Your task to perform on an android device: turn on sleep mode Image 0: 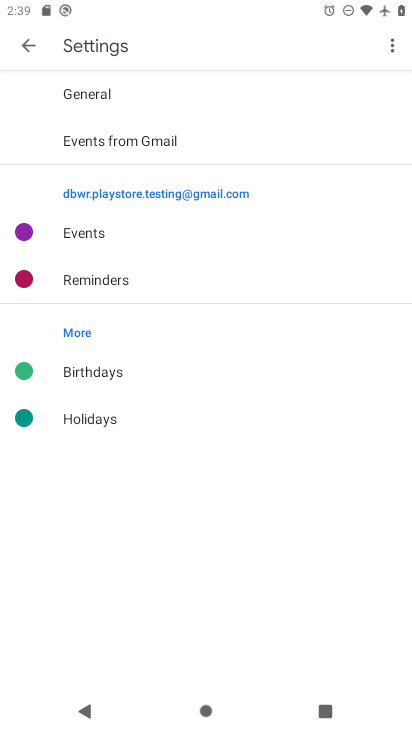
Step 0: press home button
Your task to perform on an android device: turn on sleep mode Image 1: 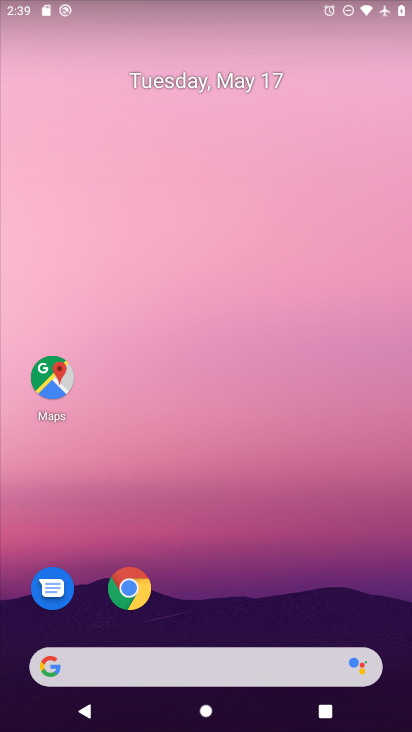
Step 1: drag from (186, 578) to (186, 211)
Your task to perform on an android device: turn on sleep mode Image 2: 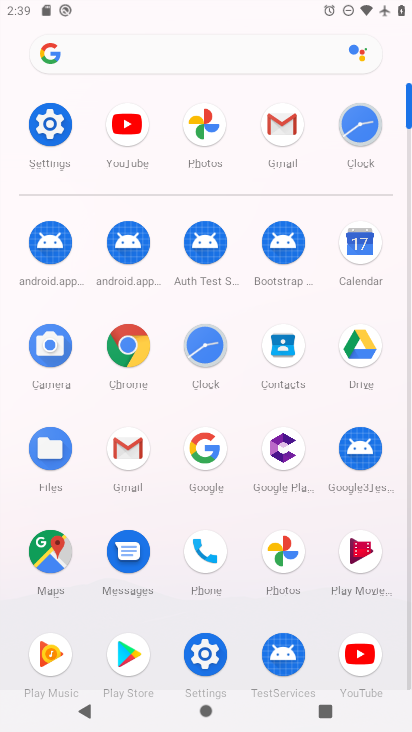
Step 2: click (51, 140)
Your task to perform on an android device: turn on sleep mode Image 3: 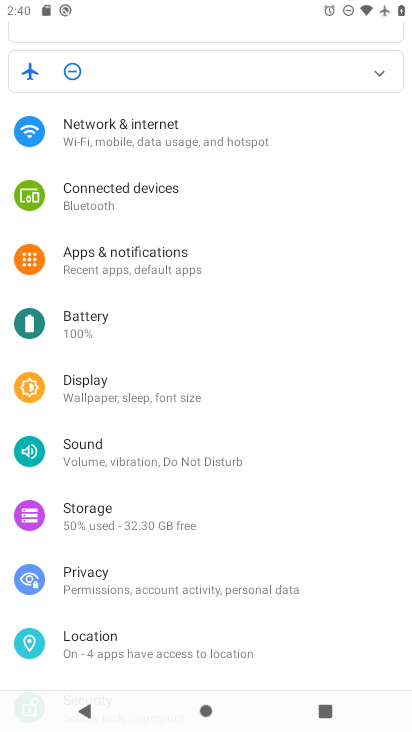
Step 3: click (121, 397)
Your task to perform on an android device: turn on sleep mode Image 4: 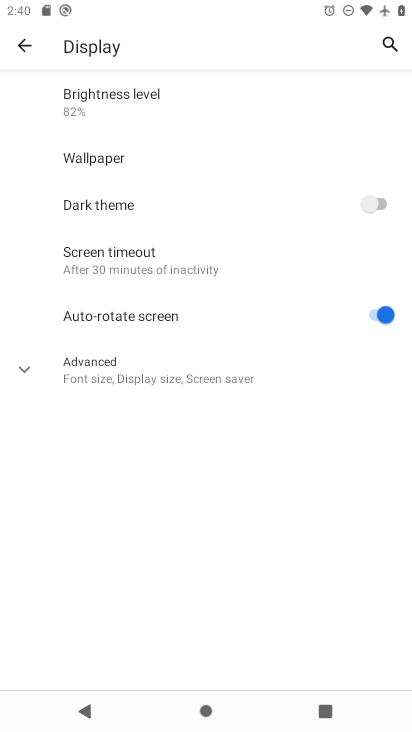
Step 4: click (125, 369)
Your task to perform on an android device: turn on sleep mode Image 5: 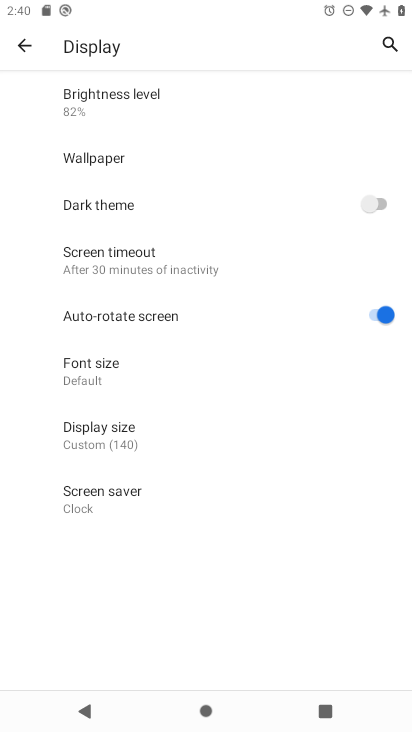
Step 5: task complete